Your task to perform on an android device: turn off translation in the chrome app Image 0: 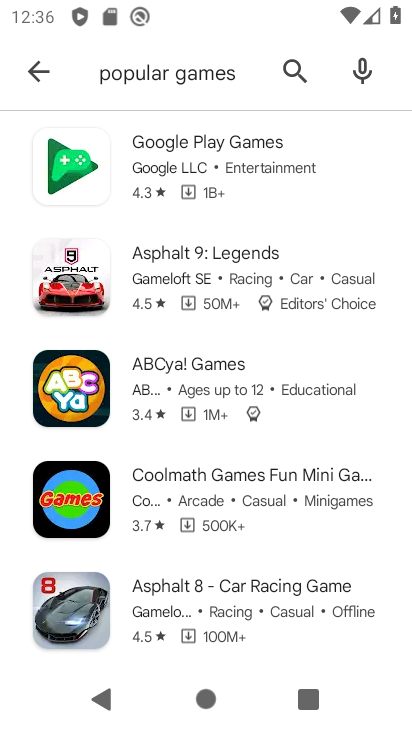
Step 0: press home button
Your task to perform on an android device: turn off translation in the chrome app Image 1: 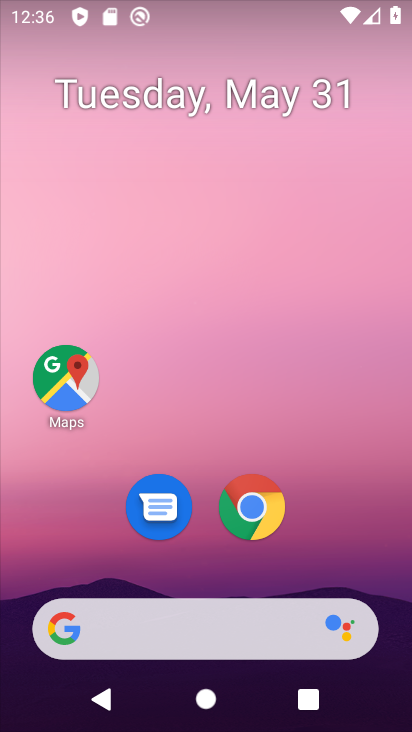
Step 1: click (260, 499)
Your task to perform on an android device: turn off translation in the chrome app Image 2: 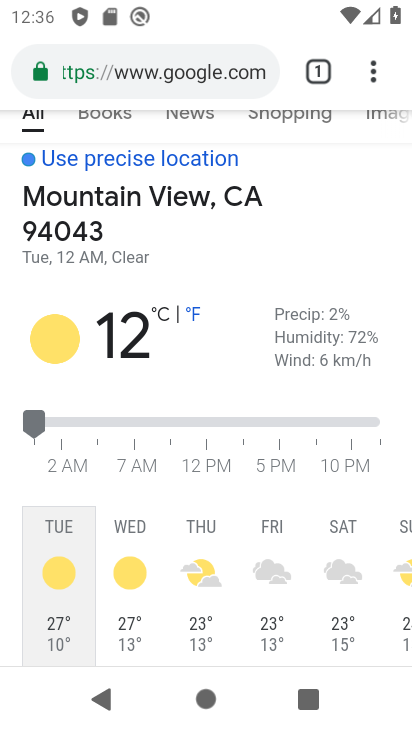
Step 2: drag from (370, 74) to (175, 509)
Your task to perform on an android device: turn off translation in the chrome app Image 3: 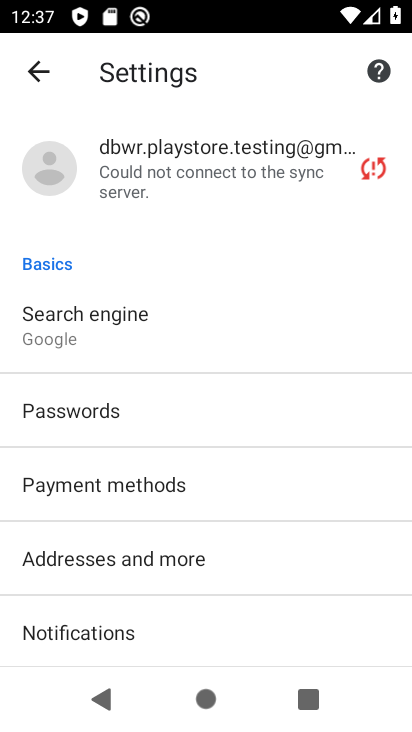
Step 3: drag from (287, 605) to (202, 298)
Your task to perform on an android device: turn off translation in the chrome app Image 4: 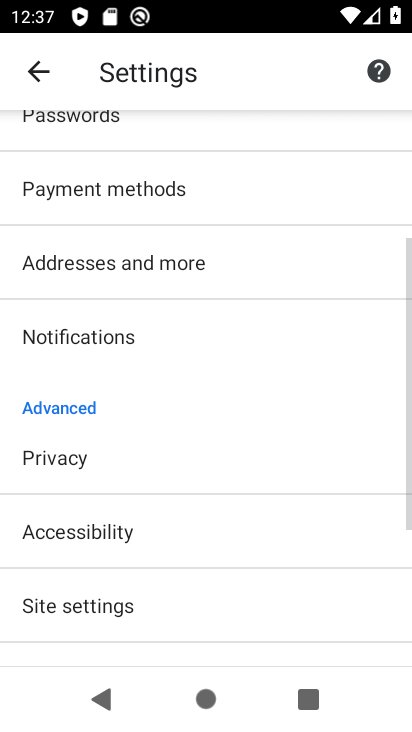
Step 4: drag from (225, 543) to (259, 153)
Your task to perform on an android device: turn off translation in the chrome app Image 5: 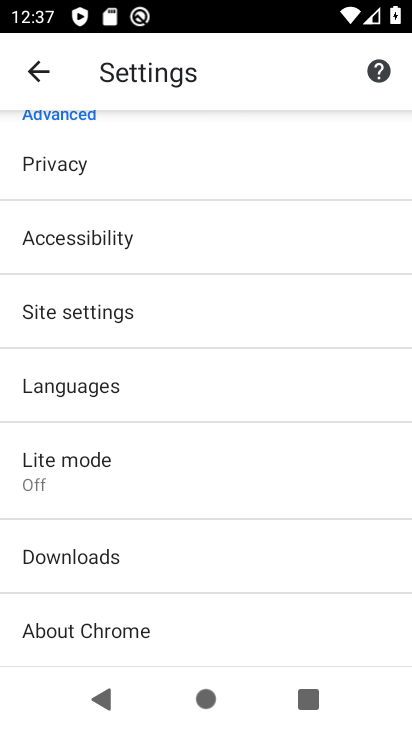
Step 5: click (273, 483)
Your task to perform on an android device: turn off translation in the chrome app Image 6: 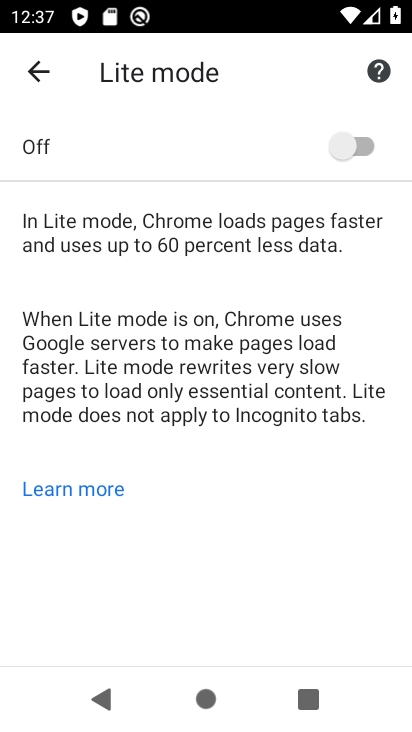
Step 6: task complete